Your task to perform on an android device: change the upload size in google photos Image 0: 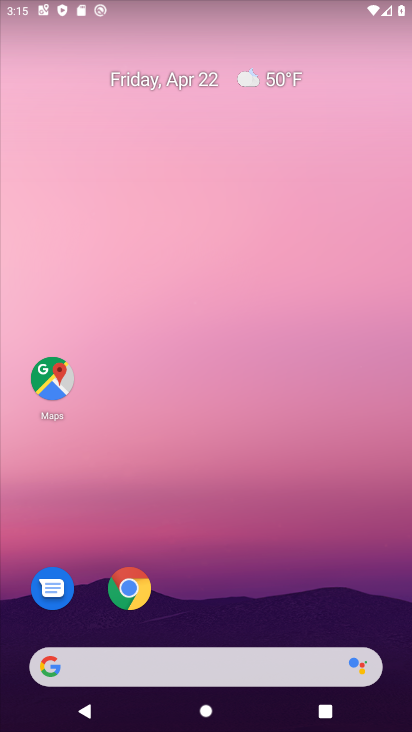
Step 0: drag from (363, 570) to (365, 105)
Your task to perform on an android device: change the upload size in google photos Image 1: 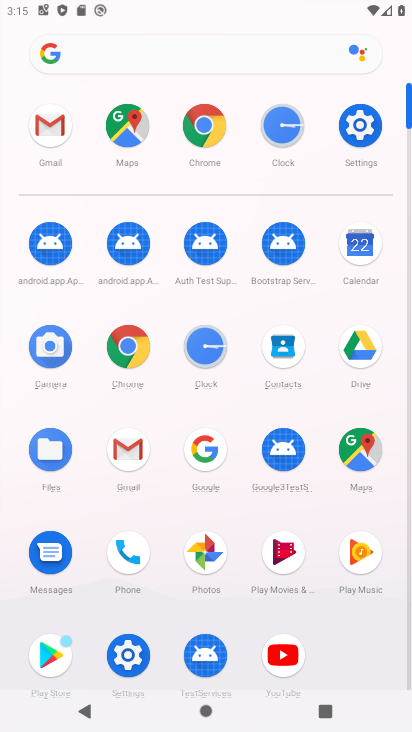
Step 1: click (197, 554)
Your task to perform on an android device: change the upload size in google photos Image 2: 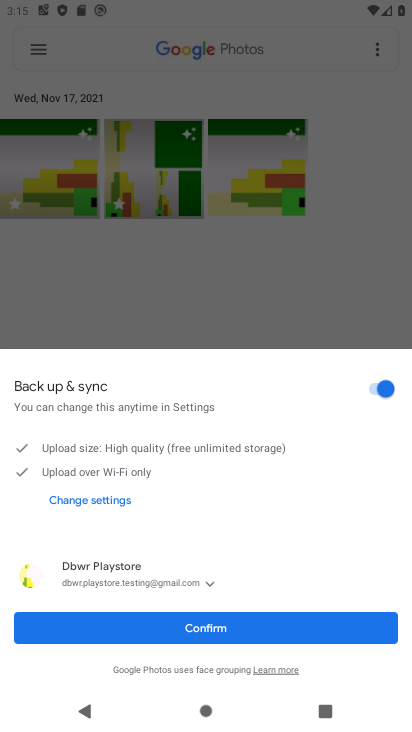
Step 2: click (377, 628)
Your task to perform on an android device: change the upload size in google photos Image 3: 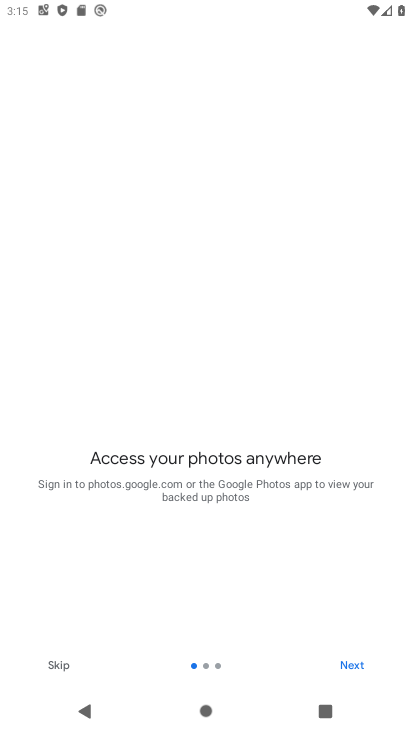
Step 3: click (346, 667)
Your task to perform on an android device: change the upload size in google photos Image 4: 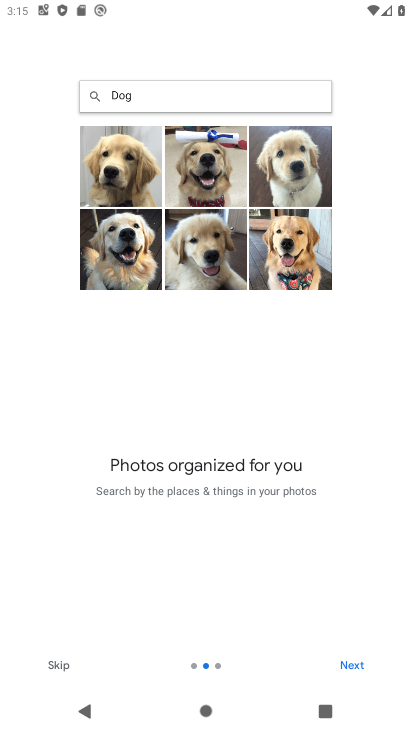
Step 4: click (354, 663)
Your task to perform on an android device: change the upload size in google photos Image 5: 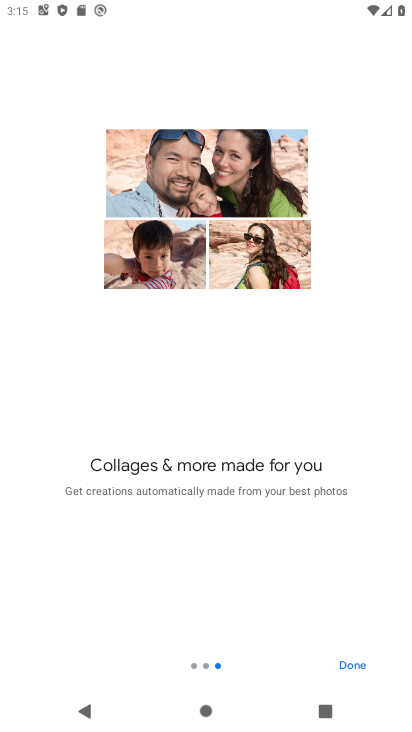
Step 5: click (346, 662)
Your task to perform on an android device: change the upload size in google photos Image 6: 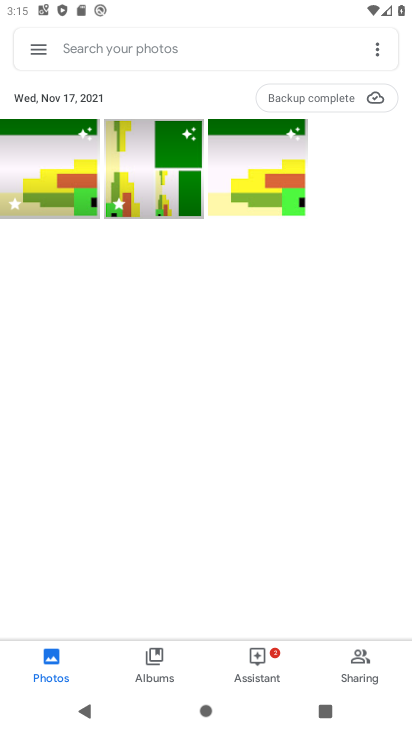
Step 6: click (36, 46)
Your task to perform on an android device: change the upload size in google photos Image 7: 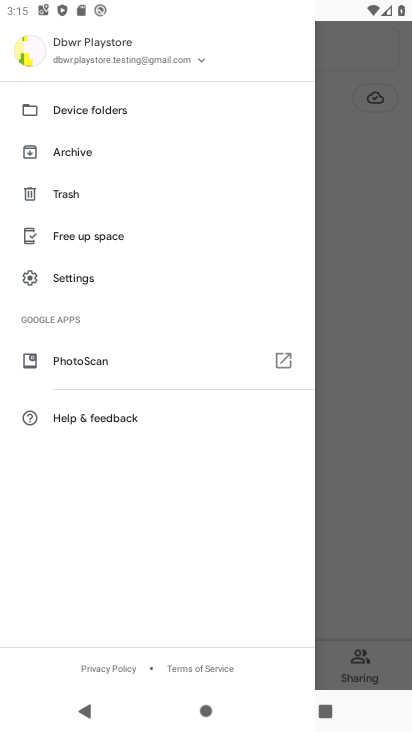
Step 7: click (86, 281)
Your task to perform on an android device: change the upload size in google photos Image 8: 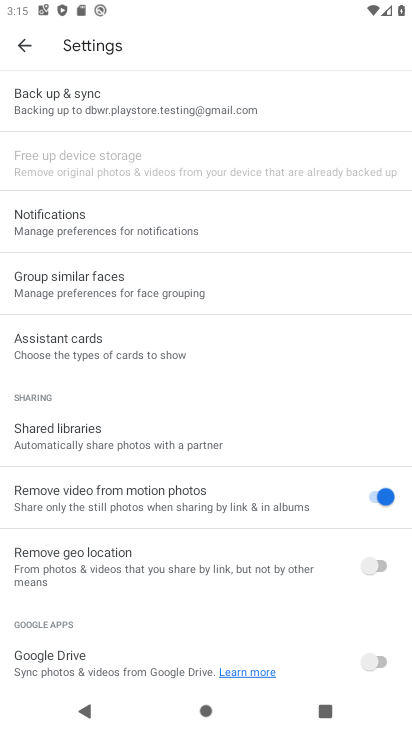
Step 8: click (186, 116)
Your task to perform on an android device: change the upload size in google photos Image 9: 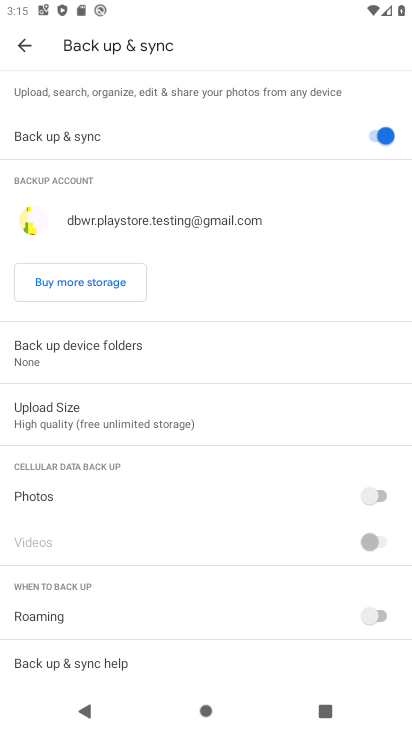
Step 9: click (180, 422)
Your task to perform on an android device: change the upload size in google photos Image 10: 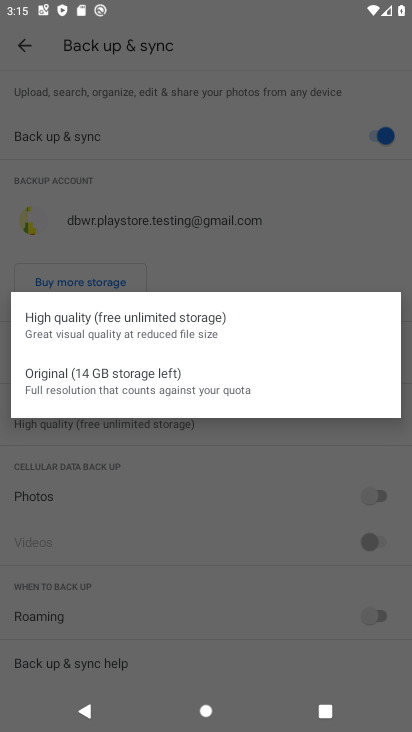
Step 10: click (169, 397)
Your task to perform on an android device: change the upload size in google photos Image 11: 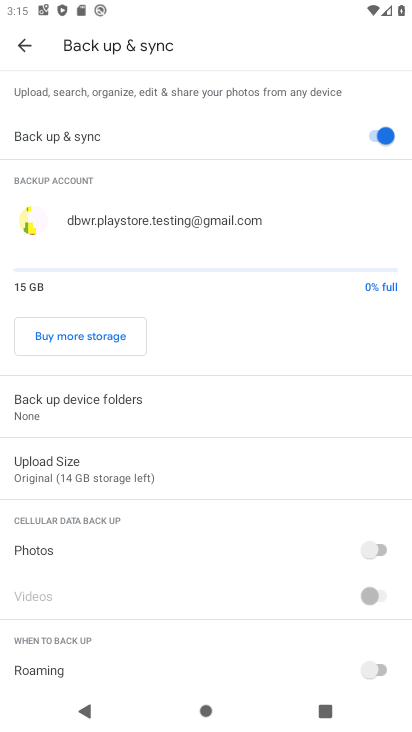
Step 11: task complete